Your task to perform on an android device: Open network settings Image 0: 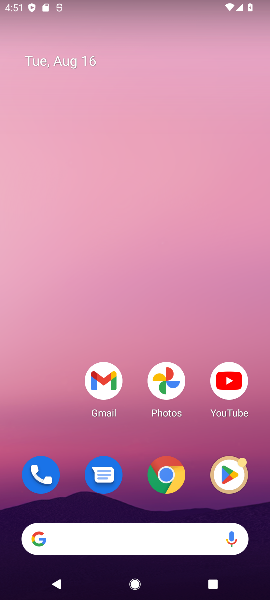
Step 0: drag from (264, 499) to (107, 100)
Your task to perform on an android device: Open network settings Image 1: 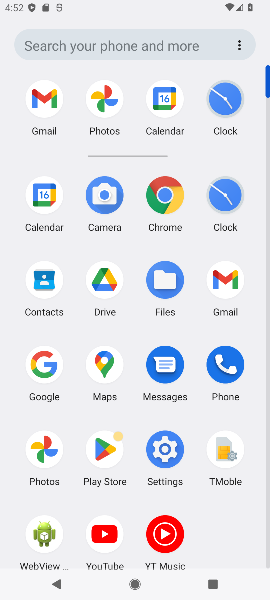
Step 1: click (157, 456)
Your task to perform on an android device: Open network settings Image 2: 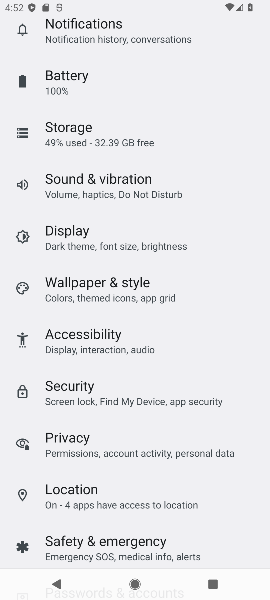
Step 2: drag from (155, 86) to (158, 506)
Your task to perform on an android device: Open network settings Image 3: 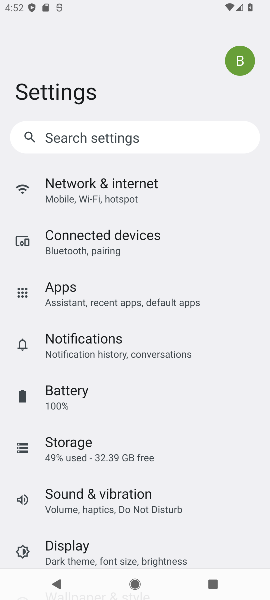
Step 3: click (167, 197)
Your task to perform on an android device: Open network settings Image 4: 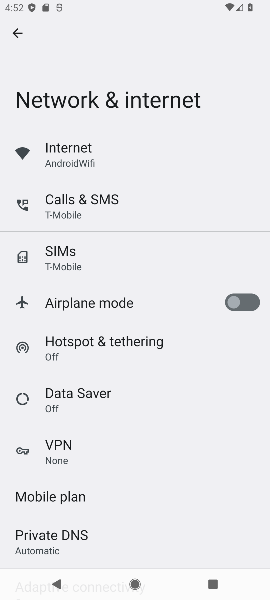
Step 4: task complete